Your task to perform on an android device: turn on data saver in the chrome app Image 0: 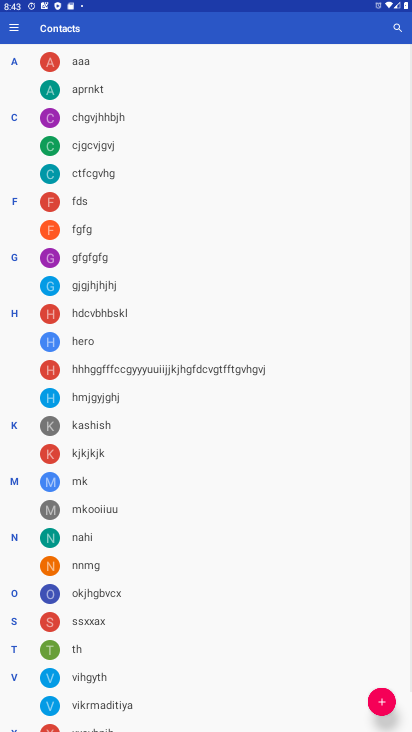
Step 0: press home button
Your task to perform on an android device: turn on data saver in the chrome app Image 1: 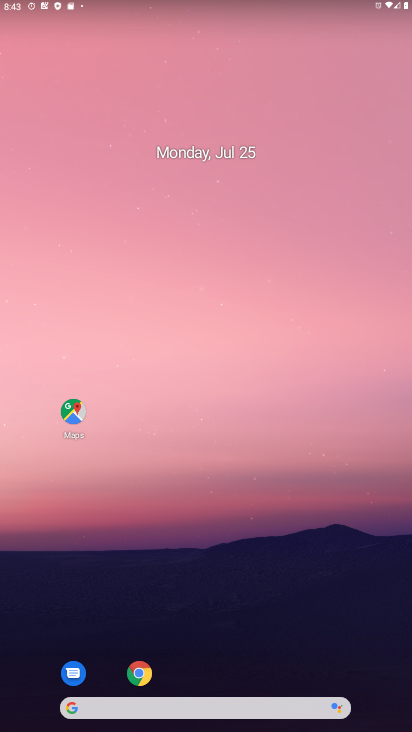
Step 1: drag from (375, 655) to (181, 62)
Your task to perform on an android device: turn on data saver in the chrome app Image 2: 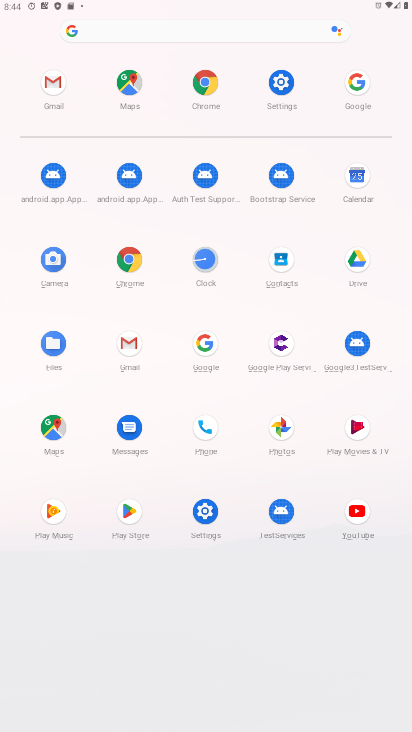
Step 2: click (127, 275)
Your task to perform on an android device: turn on data saver in the chrome app Image 3: 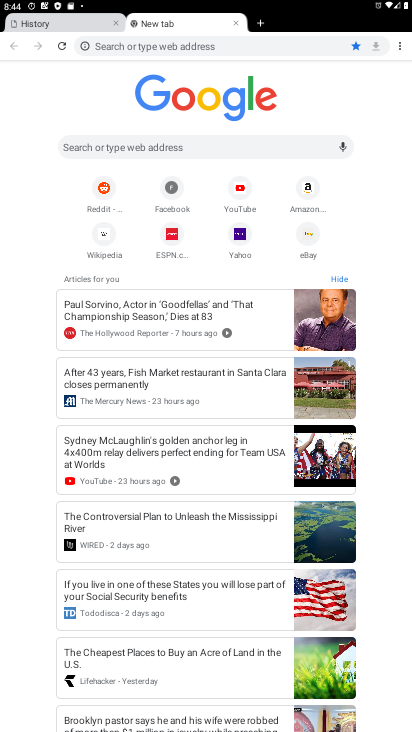
Step 3: click (396, 43)
Your task to perform on an android device: turn on data saver in the chrome app Image 4: 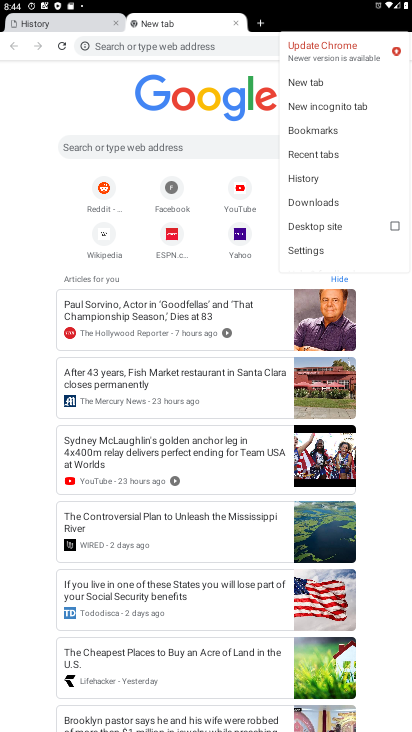
Step 4: click (315, 246)
Your task to perform on an android device: turn on data saver in the chrome app Image 5: 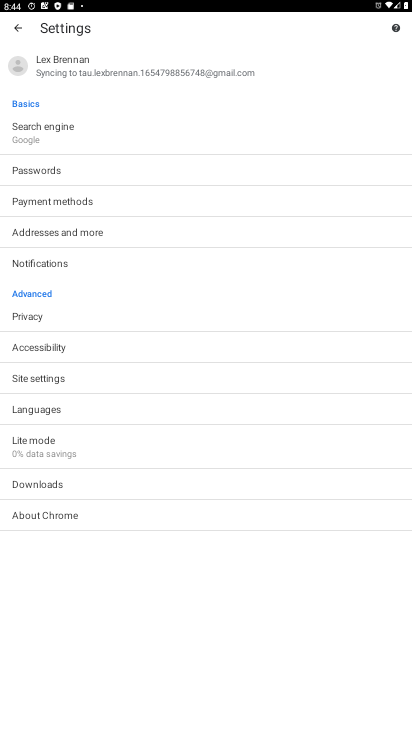
Step 5: click (66, 437)
Your task to perform on an android device: turn on data saver in the chrome app Image 6: 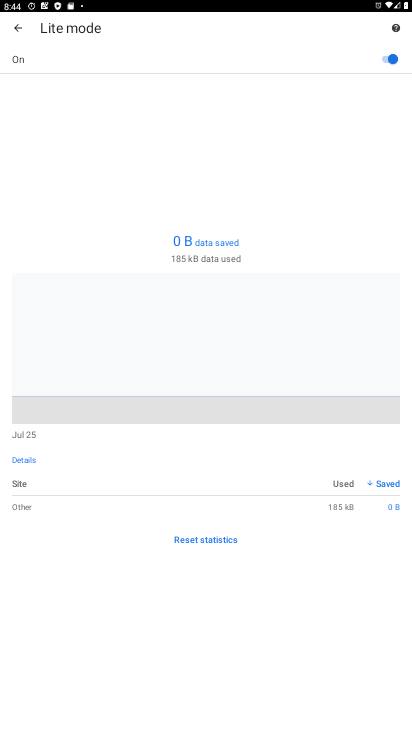
Step 6: task complete